Your task to perform on an android device: Open the map Image 0: 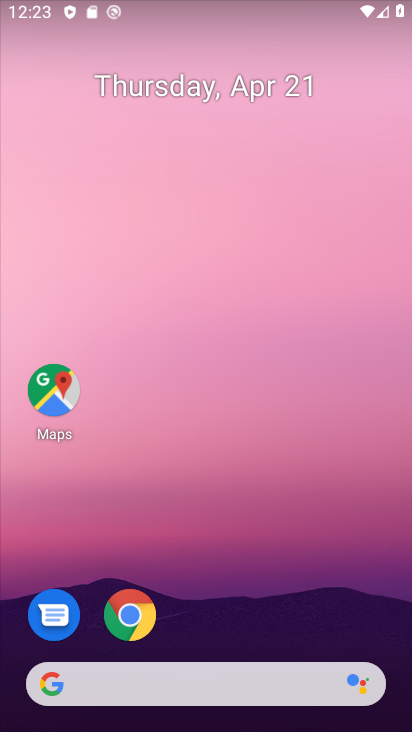
Step 0: click (38, 382)
Your task to perform on an android device: Open the map Image 1: 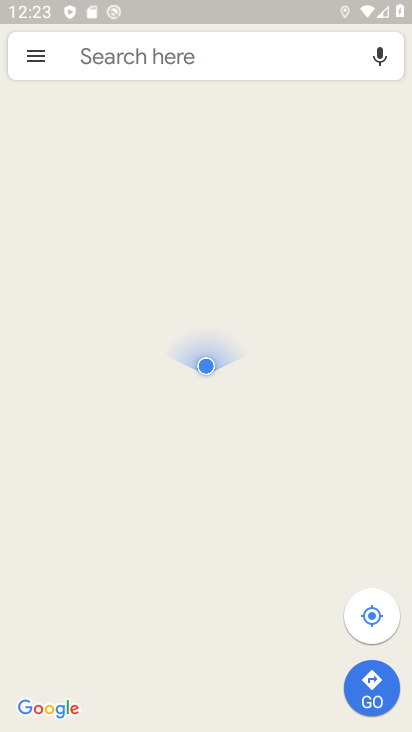
Step 1: task complete